Your task to perform on an android device: visit the assistant section in the google photos Image 0: 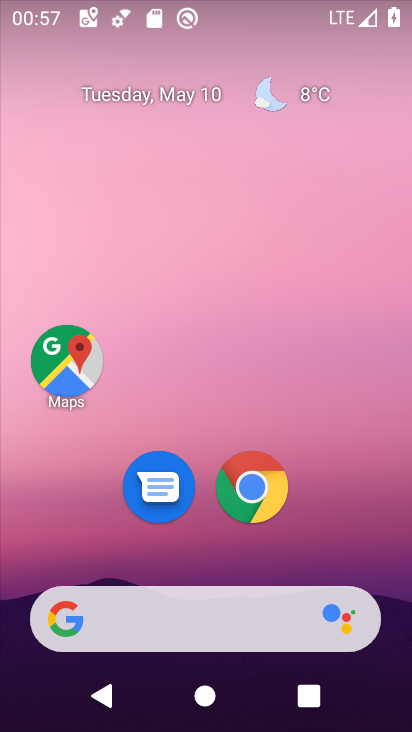
Step 0: drag from (204, 554) to (191, 50)
Your task to perform on an android device: visit the assistant section in the google photos Image 1: 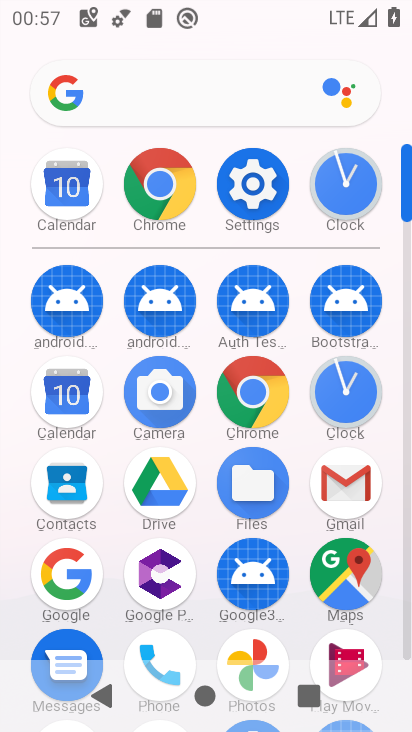
Step 1: click (253, 642)
Your task to perform on an android device: visit the assistant section in the google photos Image 2: 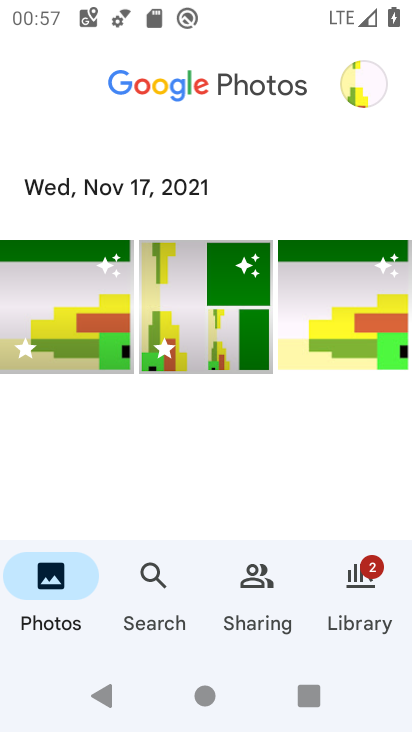
Step 2: click (151, 589)
Your task to perform on an android device: visit the assistant section in the google photos Image 3: 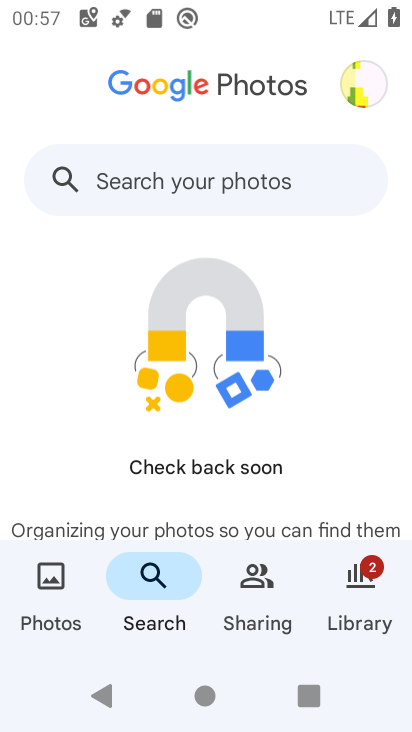
Step 3: task complete